Your task to perform on an android device: turn off improve location accuracy Image 0: 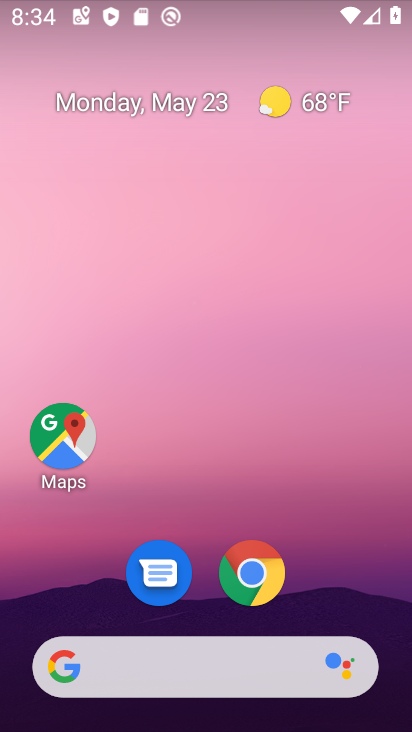
Step 0: drag from (270, 710) to (279, 280)
Your task to perform on an android device: turn off improve location accuracy Image 1: 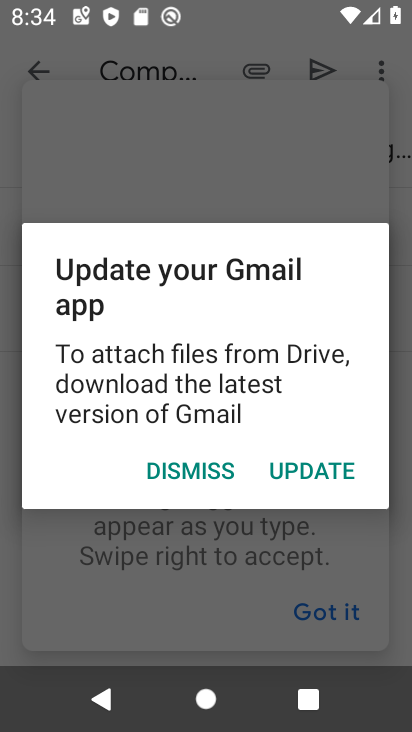
Step 1: press home button
Your task to perform on an android device: turn off improve location accuracy Image 2: 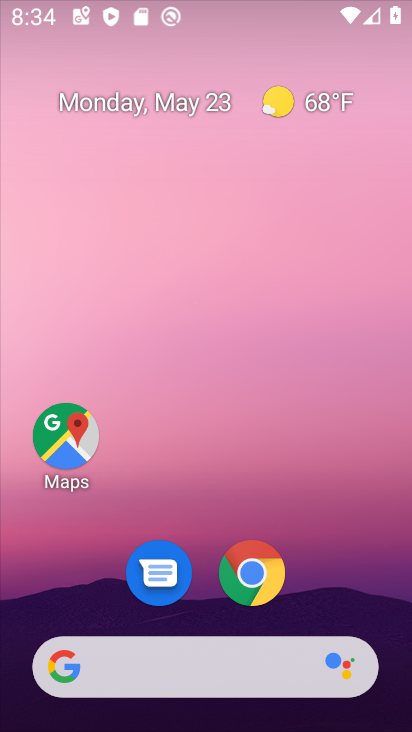
Step 2: drag from (230, 663) to (287, 114)
Your task to perform on an android device: turn off improve location accuracy Image 3: 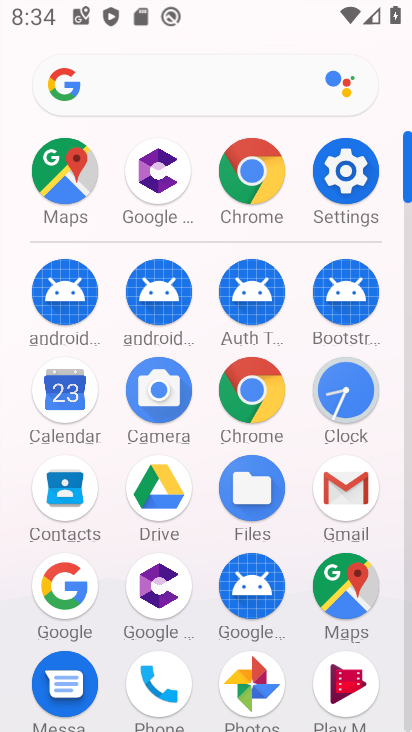
Step 3: click (359, 175)
Your task to perform on an android device: turn off improve location accuracy Image 4: 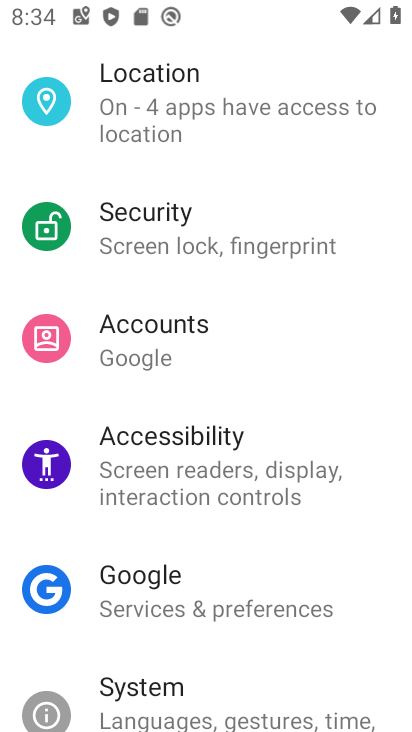
Step 4: click (239, 108)
Your task to perform on an android device: turn off improve location accuracy Image 5: 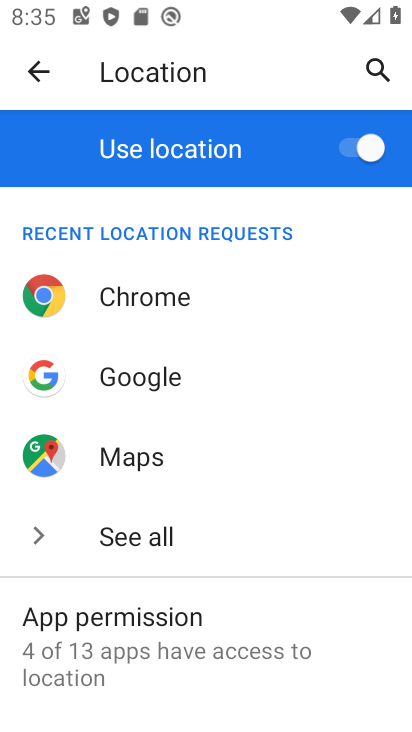
Step 5: drag from (240, 668) to (267, 145)
Your task to perform on an android device: turn off improve location accuracy Image 6: 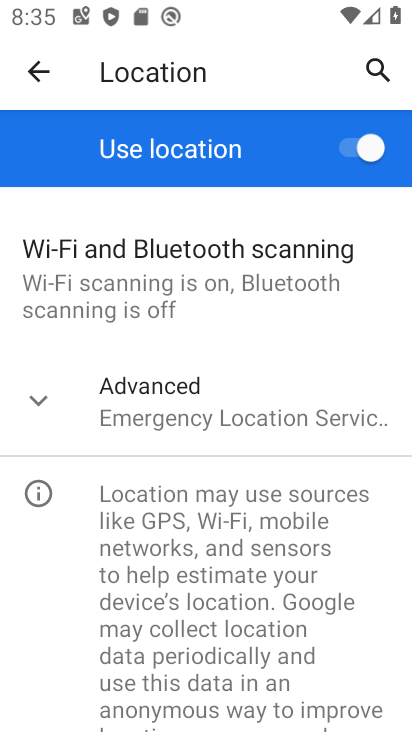
Step 6: click (241, 424)
Your task to perform on an android device: turn off improve location accuracy Image 7: 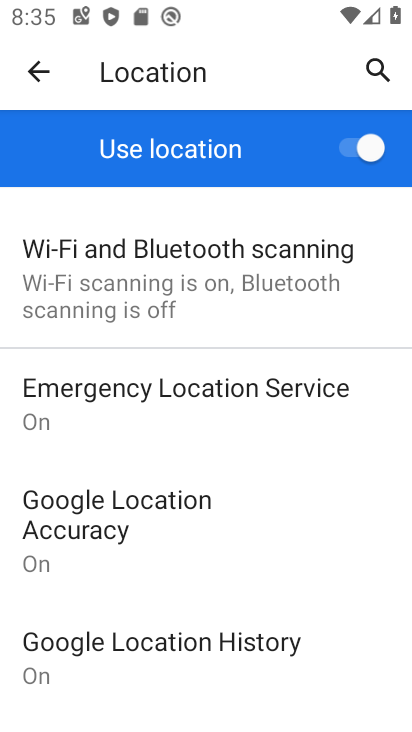
Step 7: click (208, 524)
Your task to perform on an android device: turn off improve location accuracy Image 8: 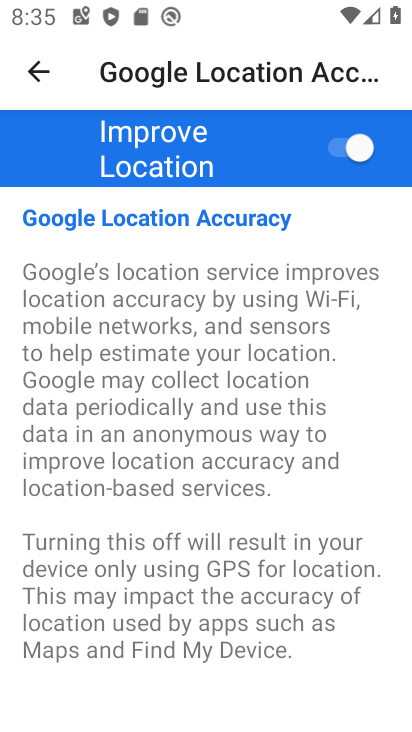
Step 8: click (337, 139)
Your task to perform on an android device: turn off improve location accuracy Image 9: 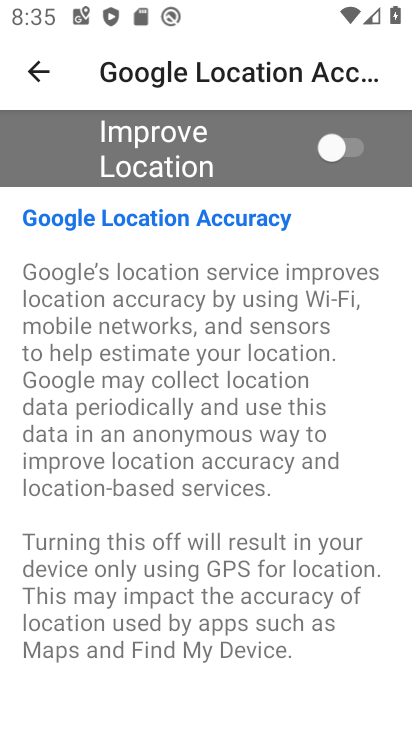
Step 9: task complete